Your task to perform on an android device: Open CNN.com Image 0: 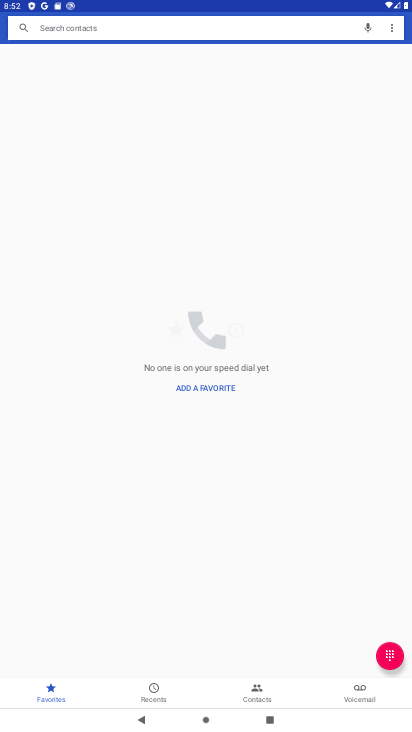
Step 0: press home button
Your task to perform on an android device: Open CNN.com Image 1: 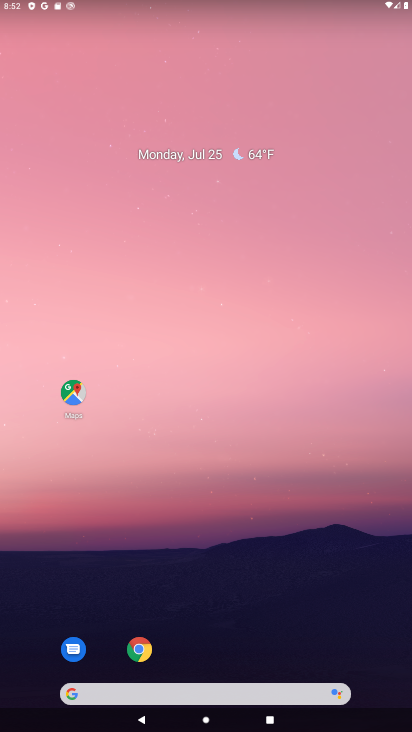
Step 1: click (142, 660)
Your task to perform on an android device: Open CNN.com Image 2: 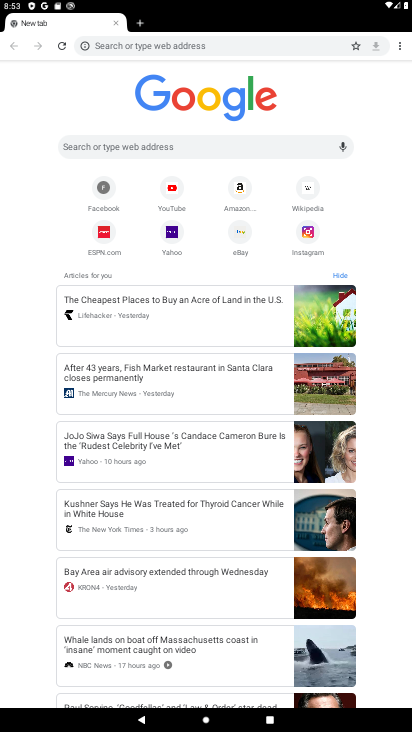
Step 2: click (192, 144)
Your task to perform on an android device: Open CNN.com Image 3: 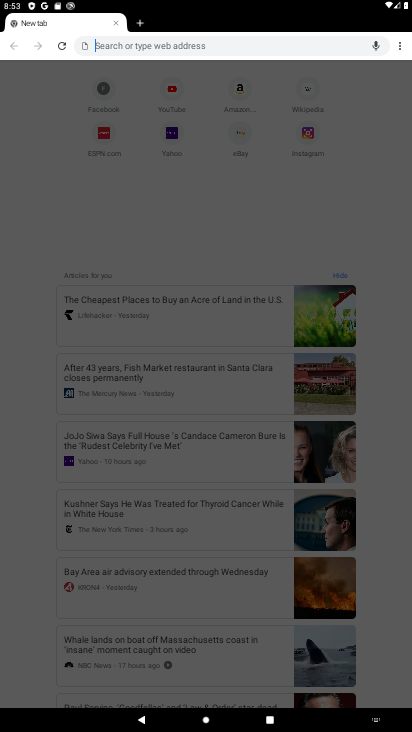
Step 3: type "cnn.com"
Your task to perform on an android device: Open CNN.com Image 4: 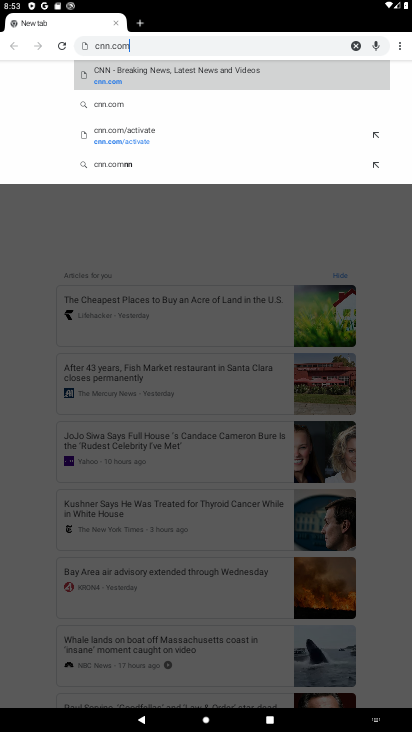
Step 4: click (121, 70)
Your task to perform on an android device: Open CNN.com Image 5: 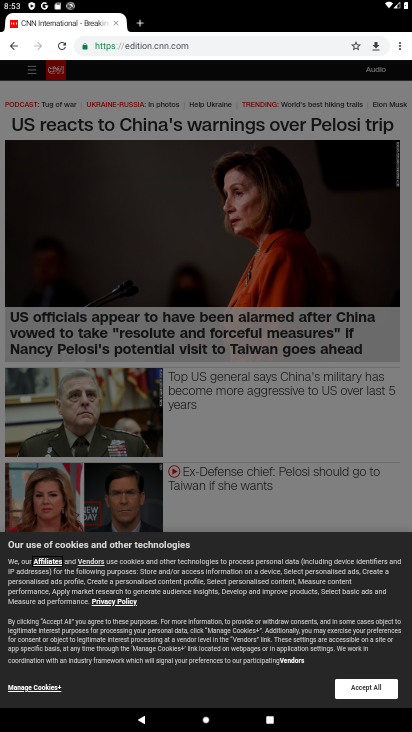
Step 5: task complete